Your task to perform on an android device: Set the phone to "Do not disturb". Image 0: 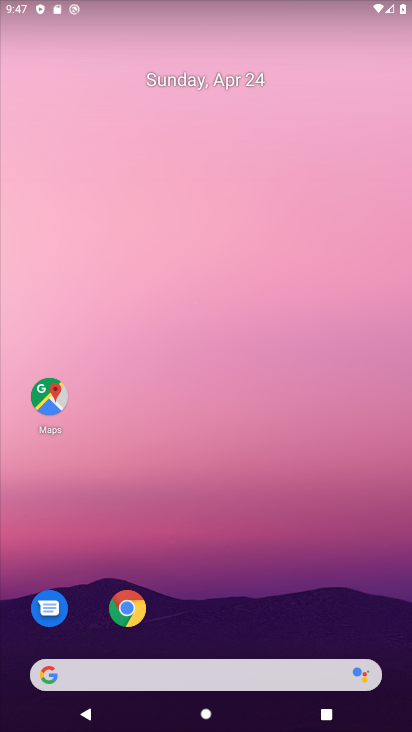
Step 0: press home button
Your task to perform on an android device: Set the phone to "Do not disturb". Image 1: 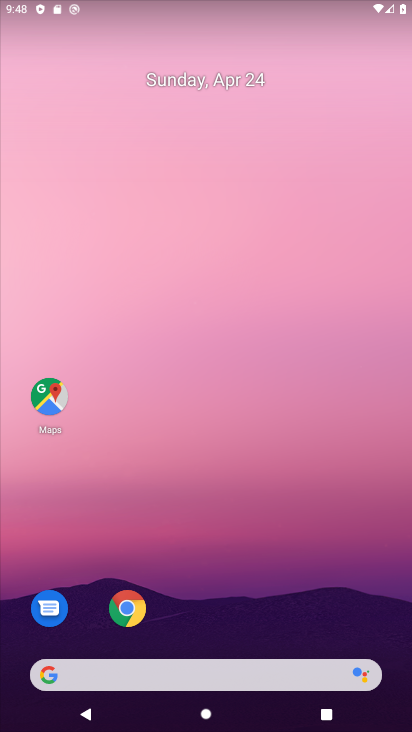
Step 1: drag from (247, 702) to (222, 198)
Your task to perform on an android device: Set the phone to "Do not disturb". Image 2: 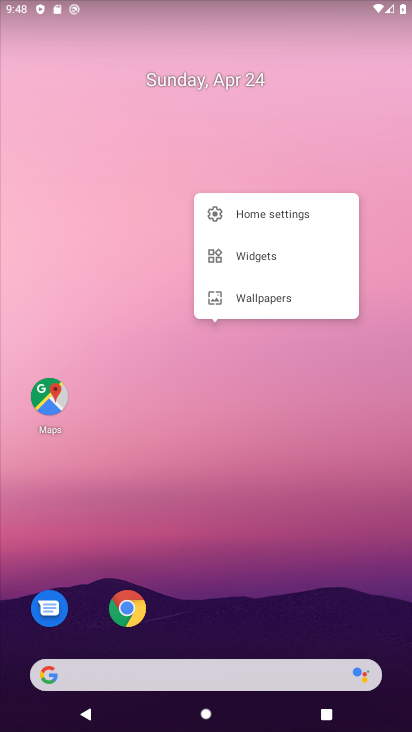
Step 2: click (182, 545)
Your task to perform on an android device: Set the phone to "Do not disturb". Image 3: 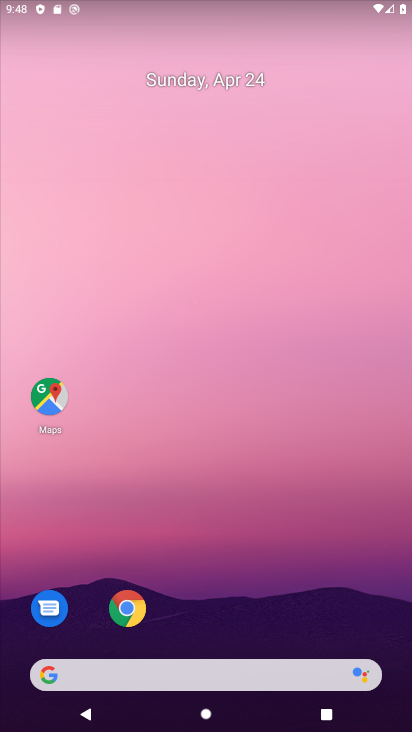
Step 3: drag from (246, 699) to (199, 191)
Your task to perform on an android device: Set the phone to "Do not disturb". Image 4: 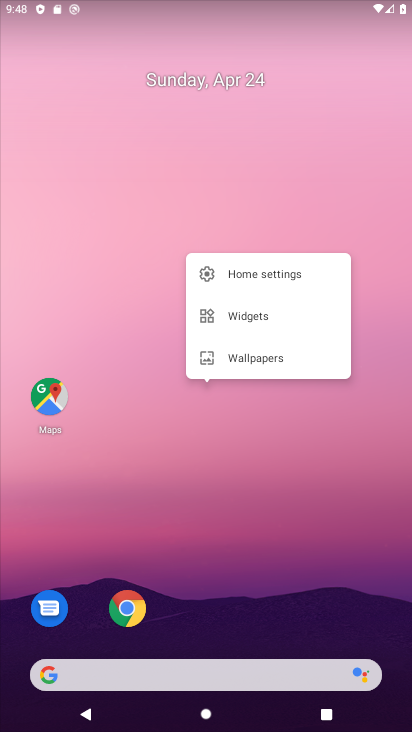
Step 4: click (144, 243)
Your task to perform on an android device: Set the phone to "Do not disturb". Image 5: 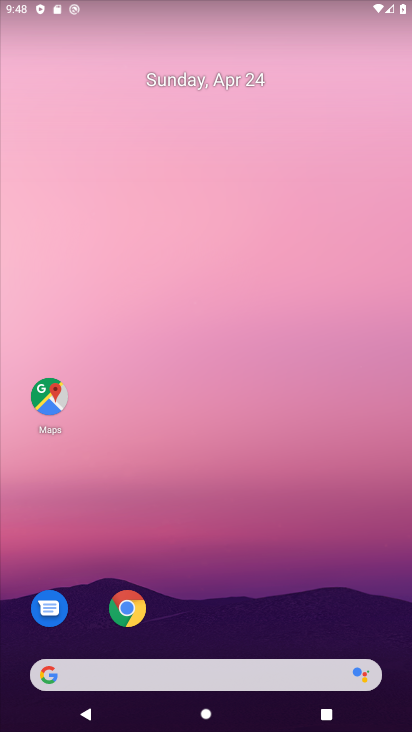
Step 5: drag from (293, 699) to (279, 270)
Your task to perform on an android device: Set the phone to "Do not disturb". Image 6: 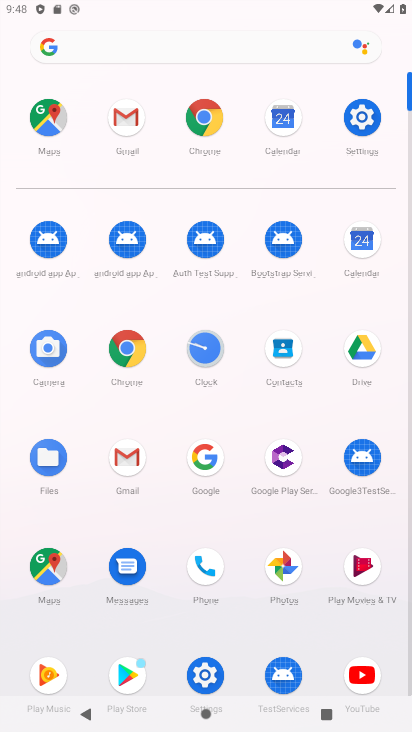
Step 6: click (351, 126)
Your task to perform on an android device: Set the phone to "Do not disturb". Image 7: 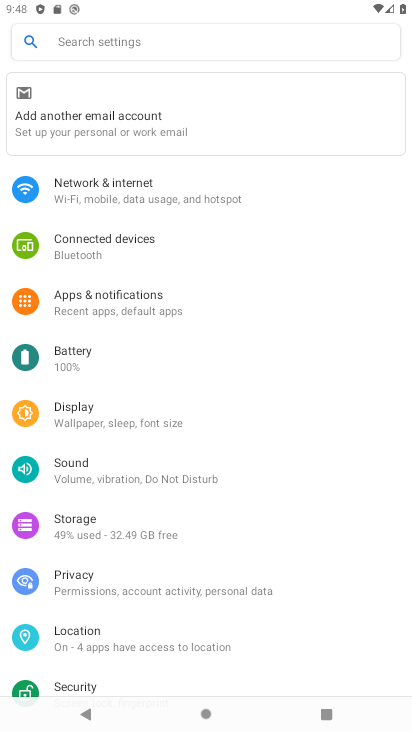
Step 7: click (145, 54)
Your task to perform on an android device: Set the phone to "Do not disturb". Image 8: 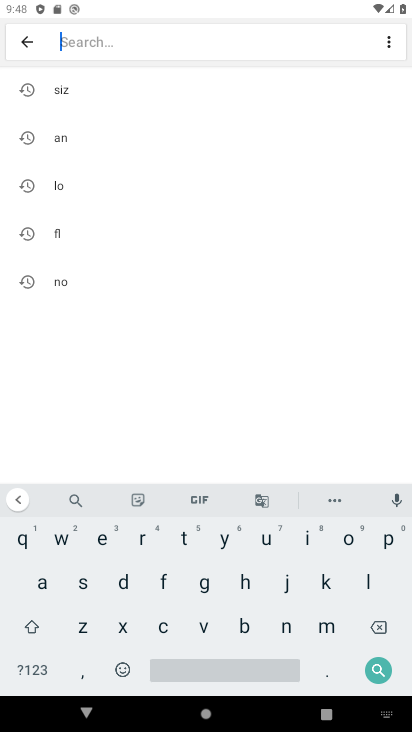
Step 8: click (123, 592)
Your task to perform on an android device: Set the phone to "Do not disturb". Image 9: 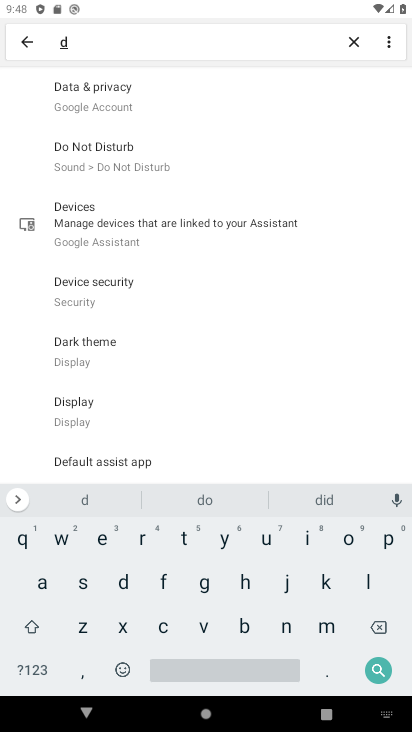
Step 9: click (282, 623)
Your task to perform on an android device: Set the phone to "Do not disturb". Image 10: 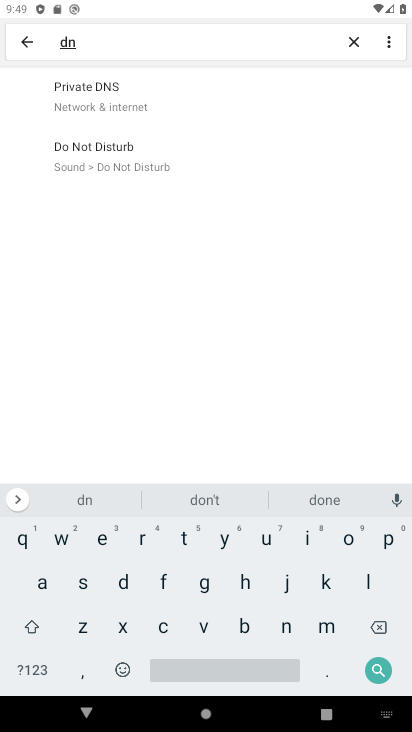
Step 10: click (190, 149)
Your task to perform on an android device: Set the phone to "Do not disturb". Image 11: 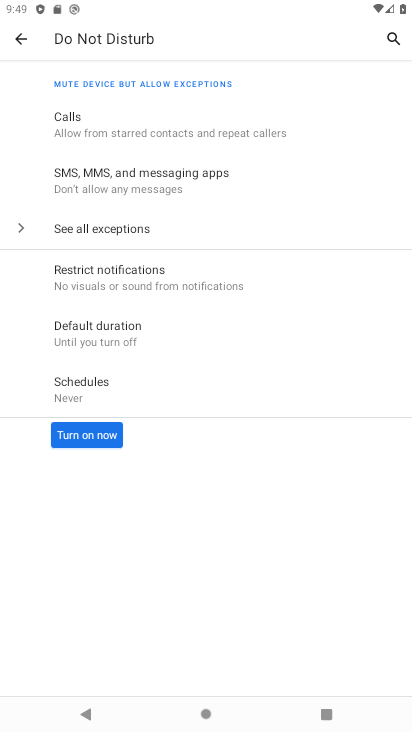
Step 11: click (88, 422)
Your task to perform on an android device: Set the phone to "Do not disturb". Image 12: 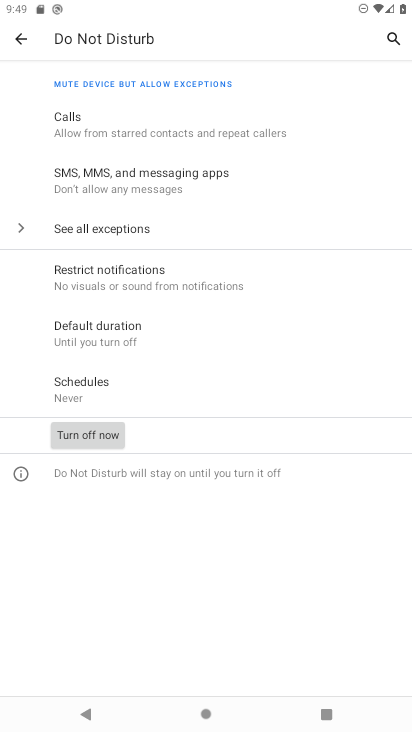
Step 12: task complete